Your task to perform on an android device: turn off javascript in the chrome app Image 0: 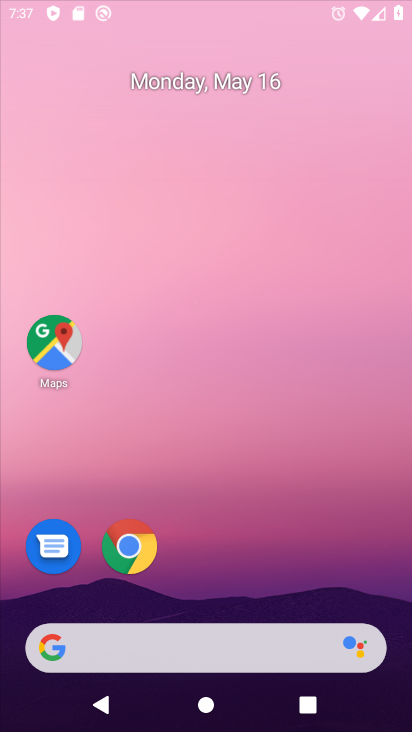
Step 0: click (276, 583)
Your task to perform on an android device: turn off javascript in the chrome app Image 1: 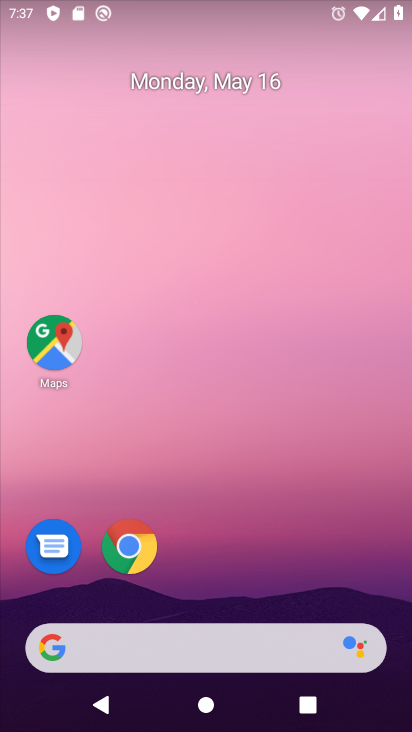
Step 1: click (139, 559)
Your task to perform on an android device: turn off javascript in the chrome app Image 2: 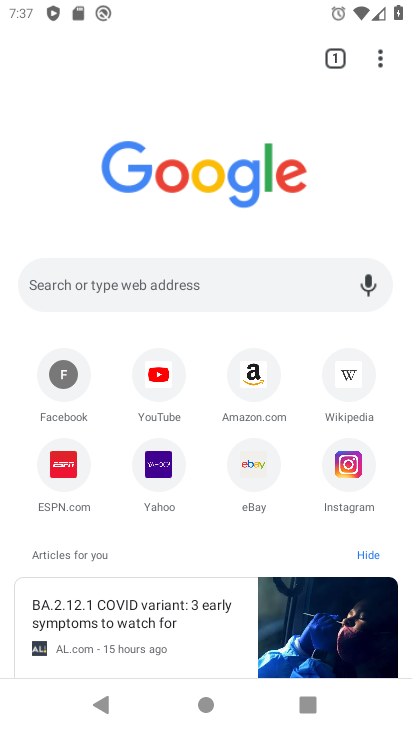
Step 2: click (386, 73)
Your task to perform on an android device: turn off javascript in the chrome app Image 3: 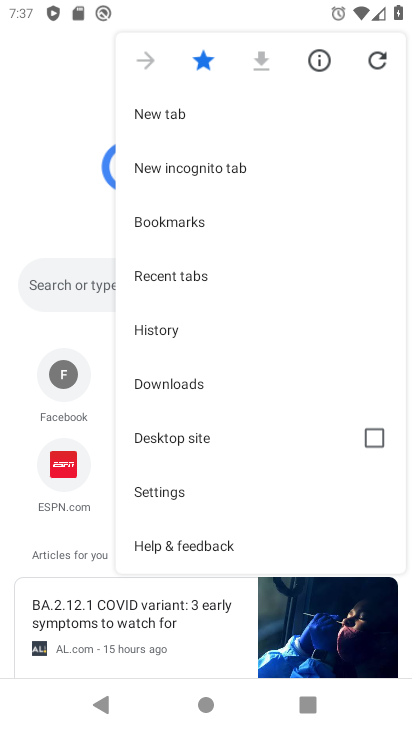
Step 3: click (160, 476)
Your task to perform on an android device: turn off javascript in the chrome app Image 4: 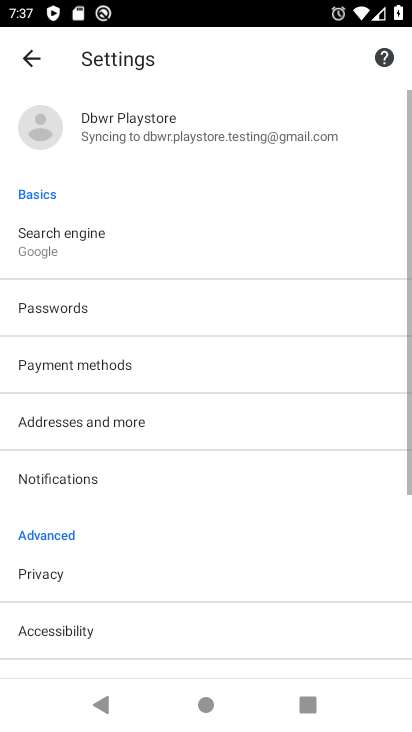
Step 4: drag from (137, 523) to (209, 148)
Your task to perform on an android device: turn off javascript in the chrome app Image 5: 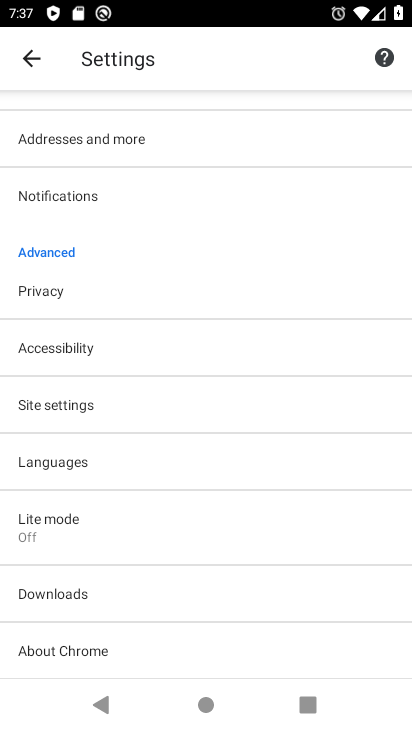
Step 5: click (208, 410)
Your task to perform on an android device: turn off javascript in the chrome app Image 6: 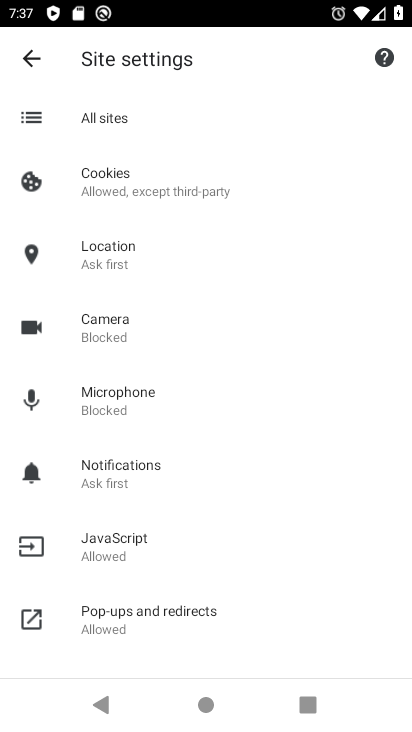
Step 6: click (202, 562)
Your task to perform on an android device: turn off javascript in the chrome app Image 7: 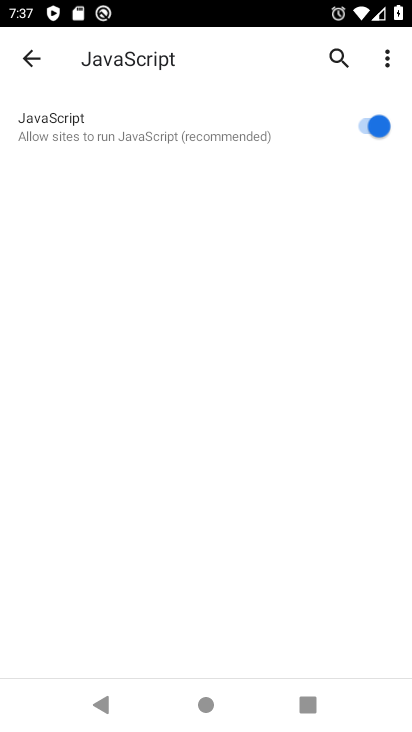
Step 7: click (337, 111)
Your task to perform on an android device: turn off javascript in the chrome app Image 8: 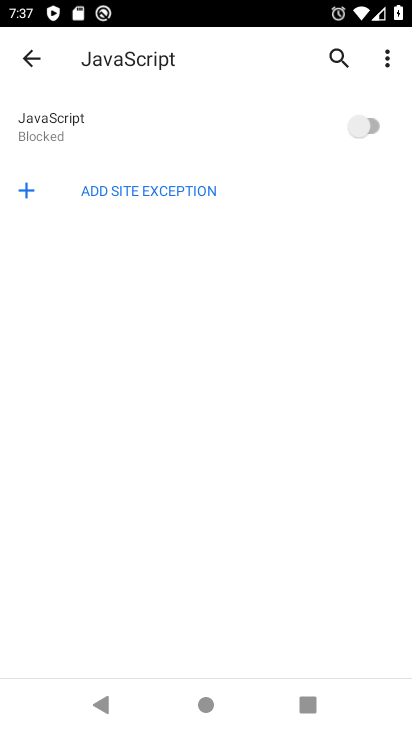
Step 8: task complete